Your task to perform on an android device: turn off notifications settings in the gmail app Image 0: 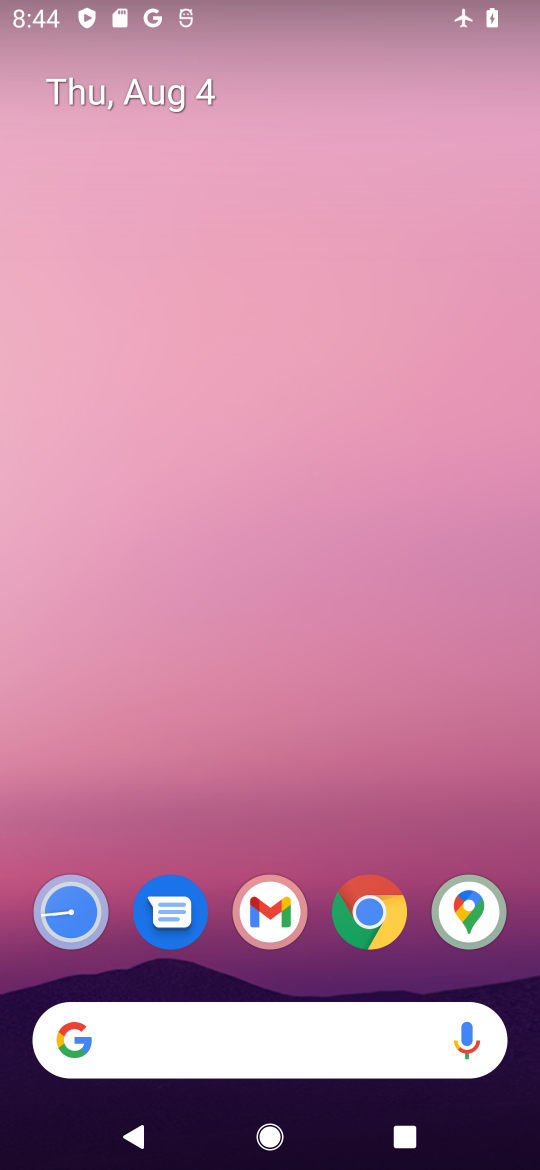
Step 0: click (269, 905)
Your task to perform on an android device: turn off notifications settings in the gmail app Image 1: 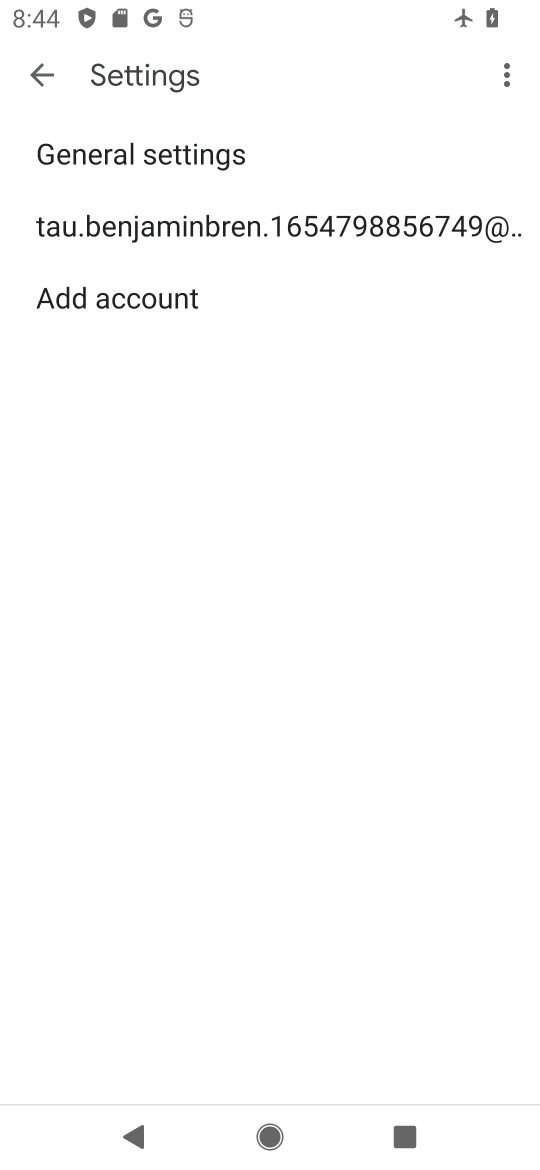
Step 1: click (384, 229)
Your task to perform on an android device: turn off notifications settings in the gmail app Image 2: 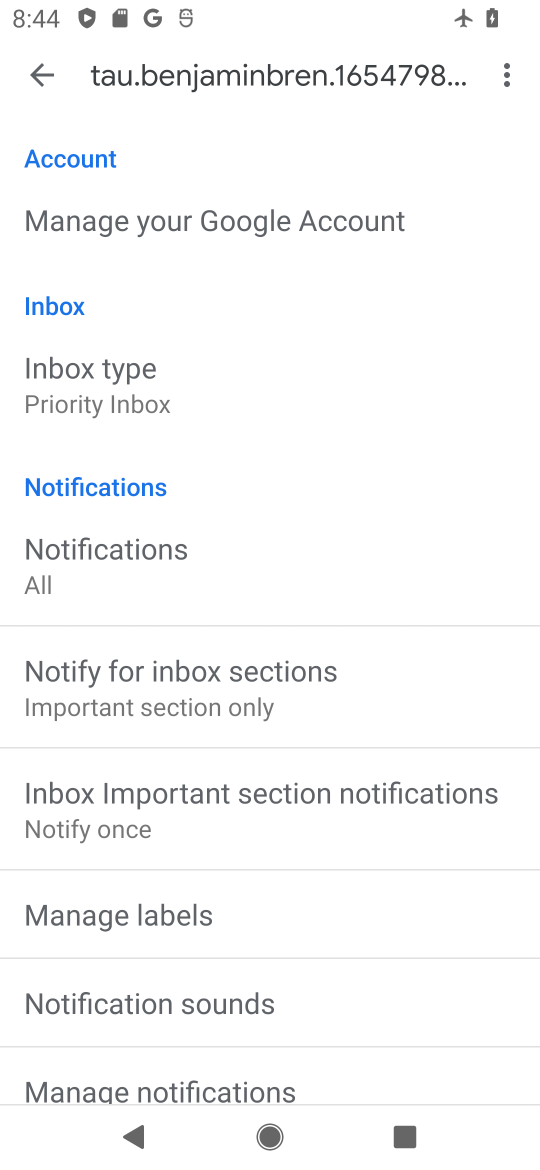
Step 2: click (260, 1101)
Your task to perform on an android device: turn off notifications settings in the gmail app Image 3: 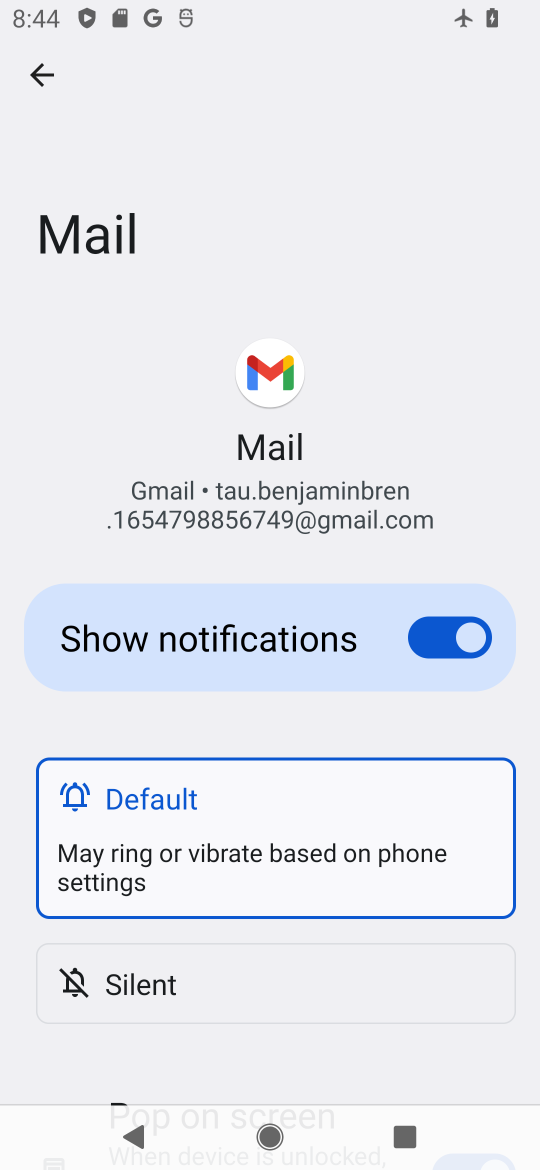
Step 3: drag from (400, 1040) to (307, 293)
Your task to perform on an android device: turn off notifications settings in the gmail app Image 4: 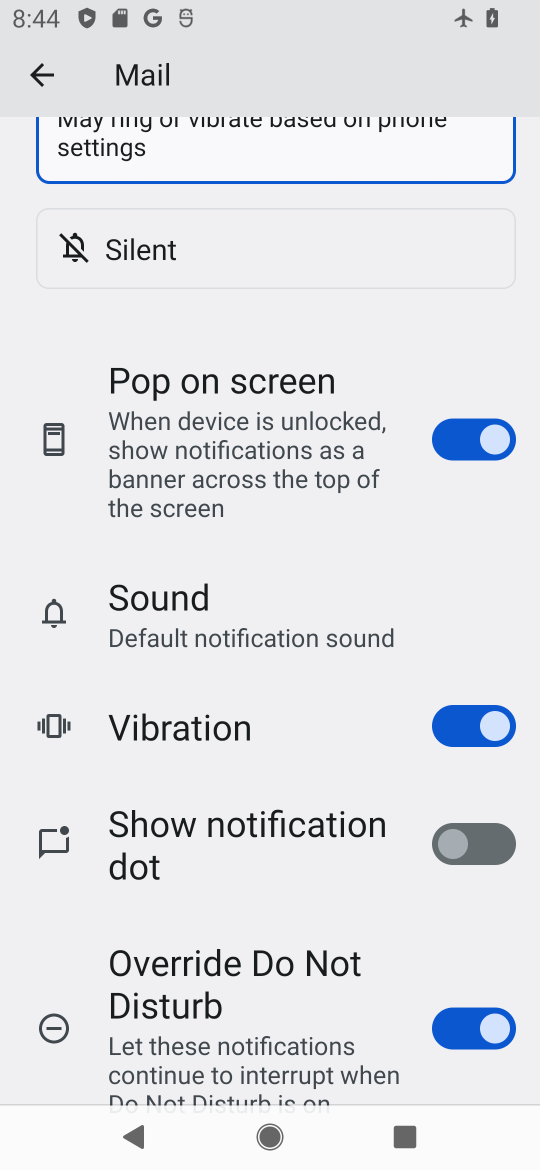
Step 4: click (471, 450)
Your task to perform on an android device: turn off notifications settings in the gmail app Image 5: 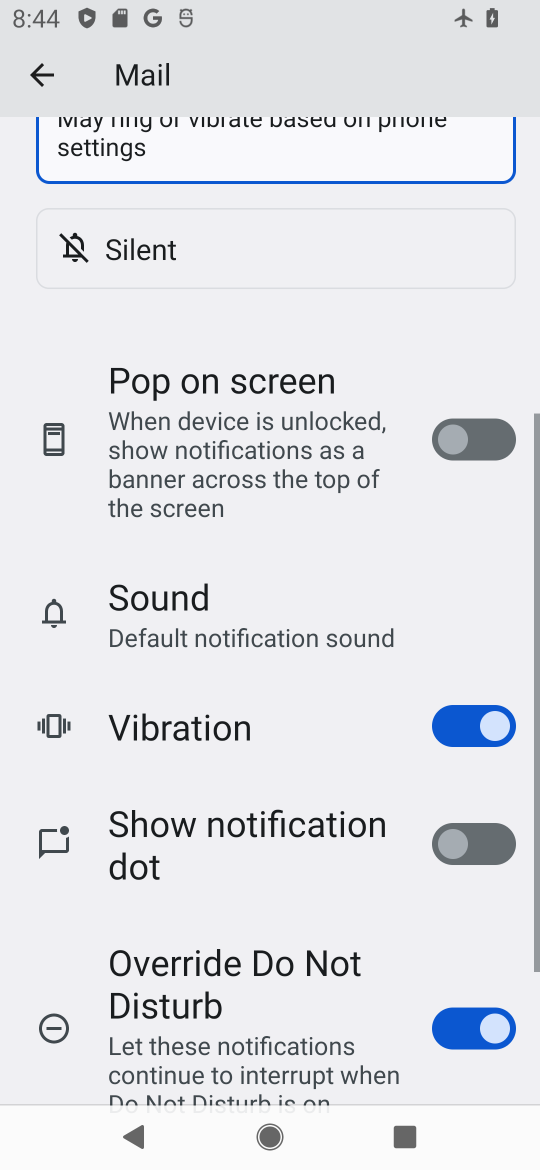
Step 5: click (463, 745)
Your task to perform on an android device: turn off notifications settings in the gmail app Image 6: 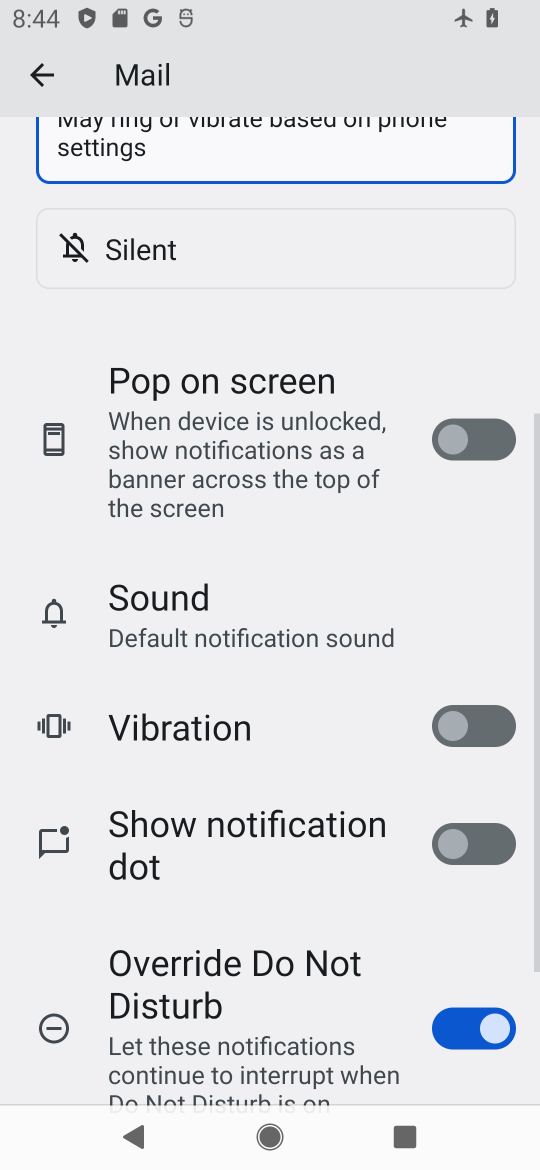
Step 6: click (457, 1033)
Your task to perform on an android device: turn off notifications settings in the gmail app Image 7: 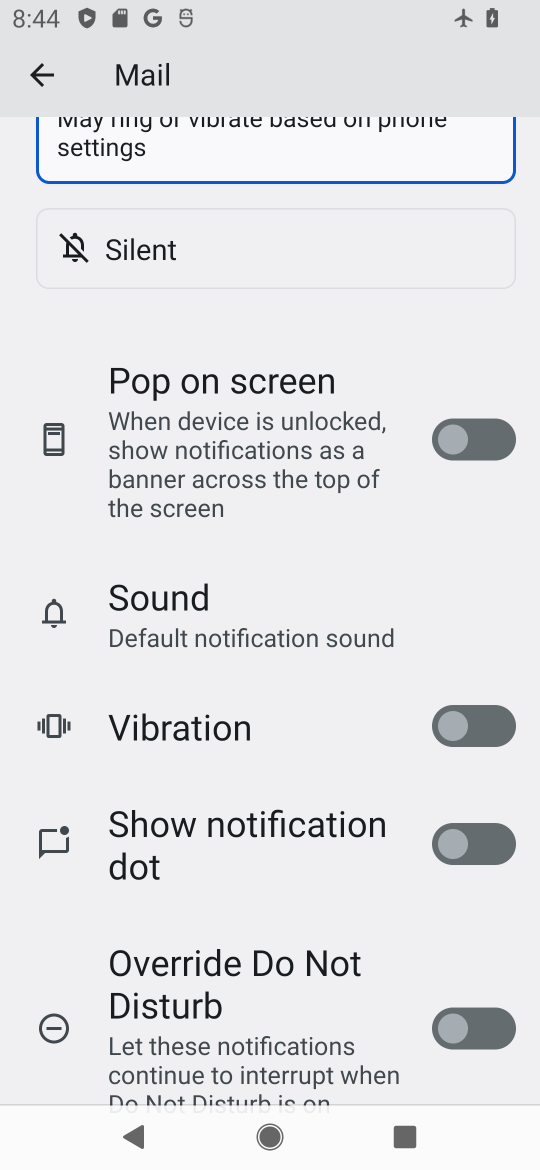
Step 7: task complete